Your task to perform on an android device: Open ESPN.com Image 0: 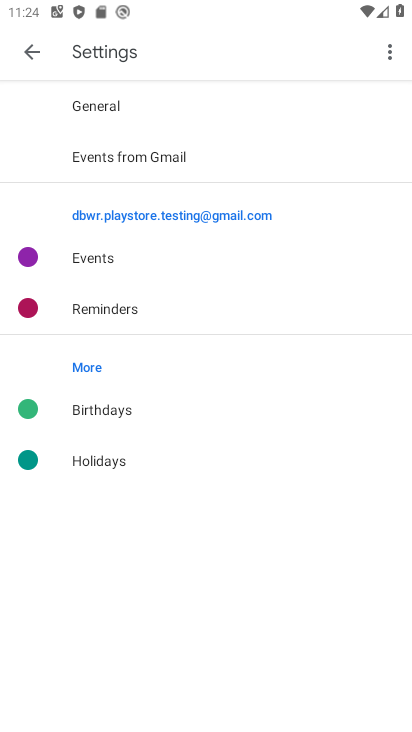
Step 0: press home button
Your task to perform on an android device: Open ESPN.com Image 1: 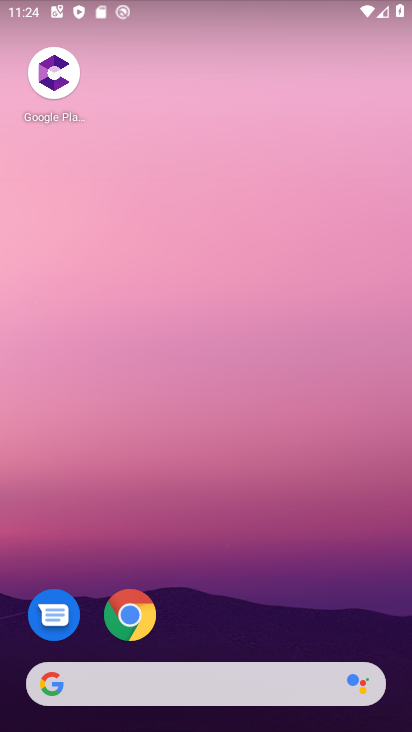
Step 1: click (206, 684)
Your task to perform on an android device: Open ESPN.com Image 2: 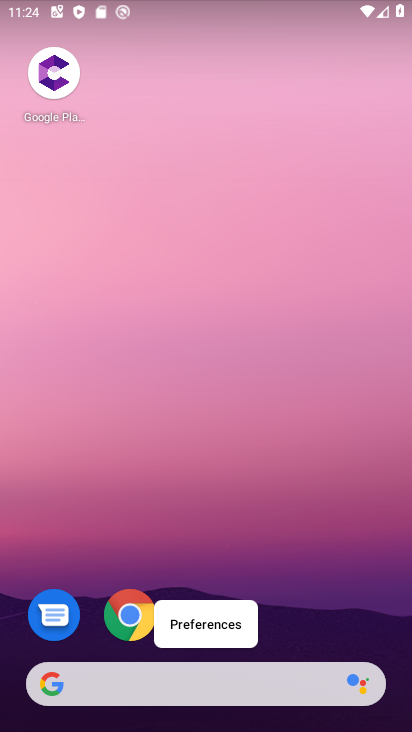
Step 2: click (206, 684)
Your task to perform on an android device: Open ESPN.com Image 3: 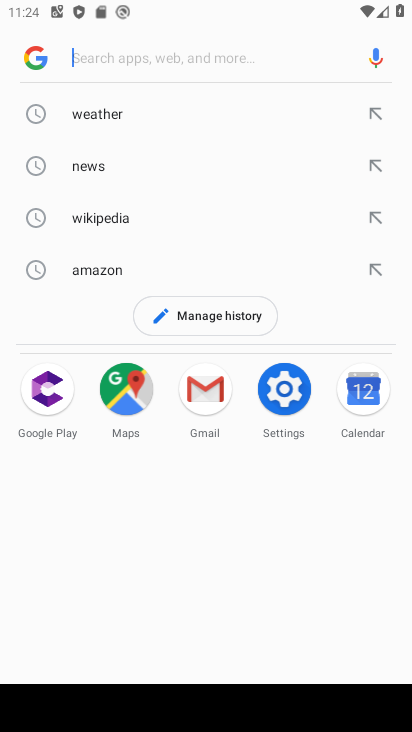
Step 3: type "espn.com"
Your task to perform on an android device: Open ESPN.com Image 4: 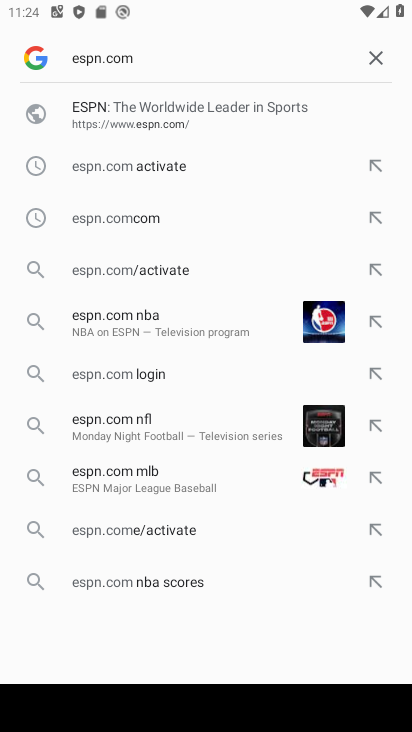
Step 4: click (84, 111)
Your task to perform on an android device: Open ESPN.com Image 5: 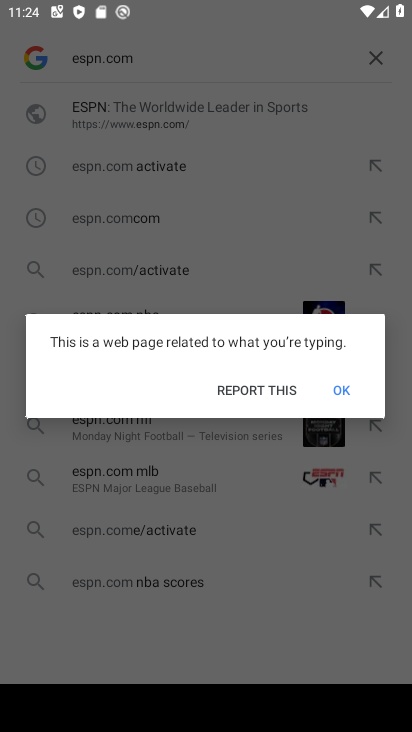
Step 5: click (343, 388)
Your task to perform on an android device: Open ESPN.com Image 6: 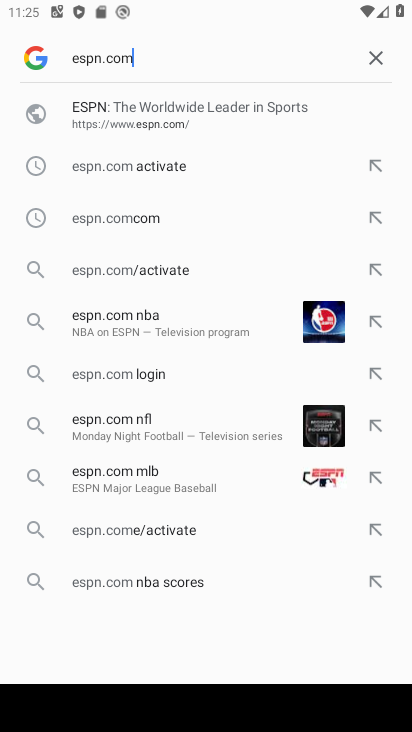
Step 6: click (75, 117)
Your task to perform on an android device: Open ESPN.com Image 7: 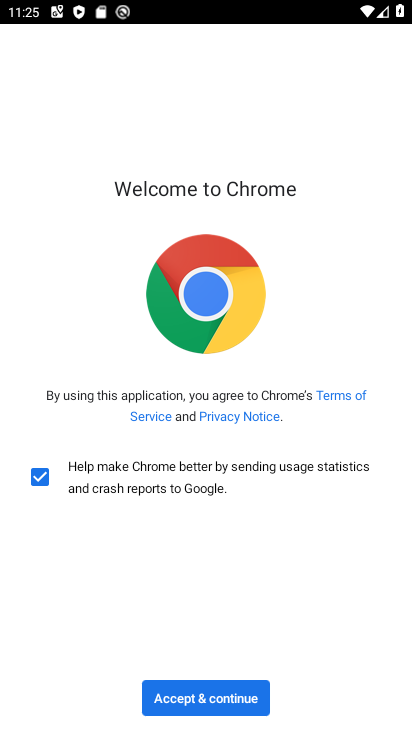
Step 7: click (213, 694)
Your task to perform on an android device: Open ESPN.com Image 8: 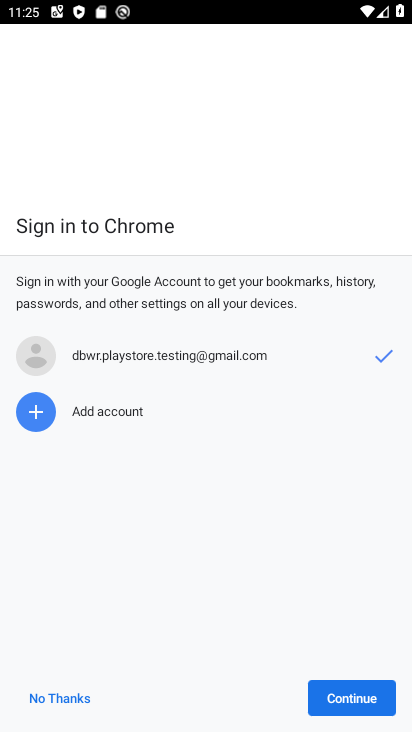
Step 8: click (333, 692)
Your task to perform on an android device: Open ESPN.com Image 9: 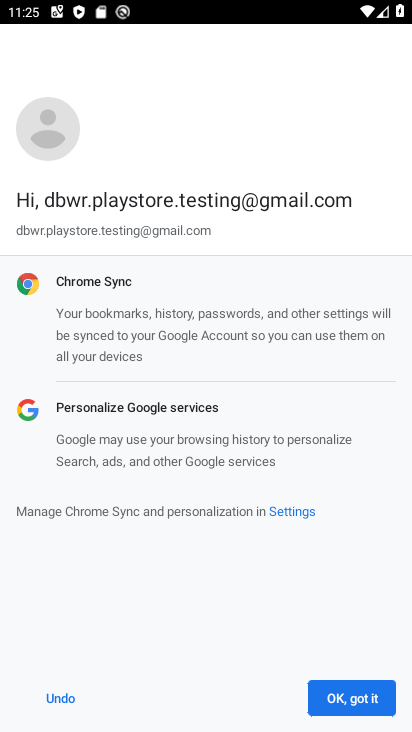
Step 9: click (336, 697)
Your task to perform on an android device: Open ESPN.com Image 10: 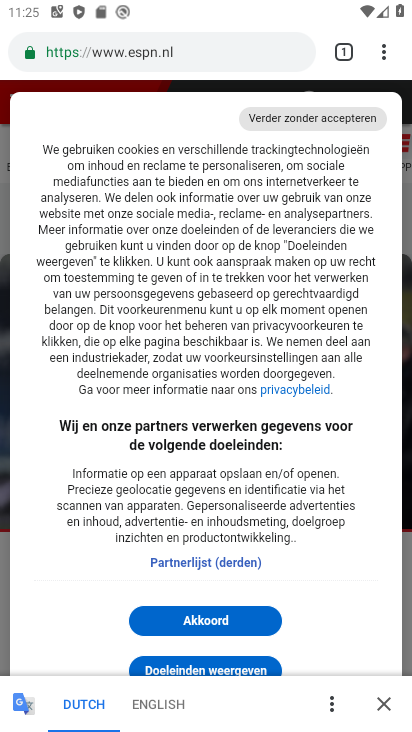
Step 10: task complete